Your task to perform on an android device: Go to Yahoo.com Image 0: 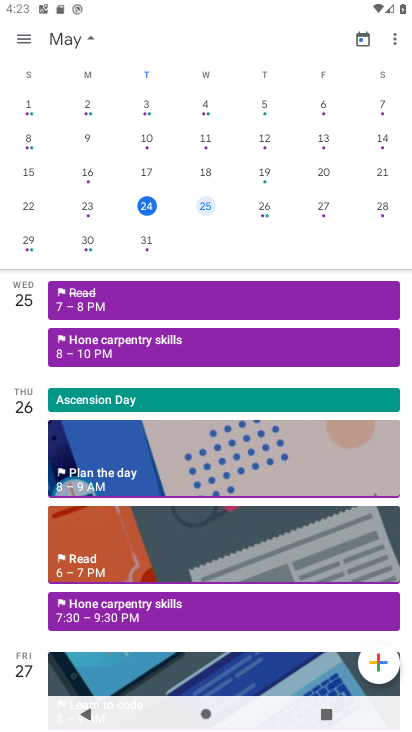
Step 0: press home button
Your task to perform on an android device: Go to Yahoo.com Image 1: 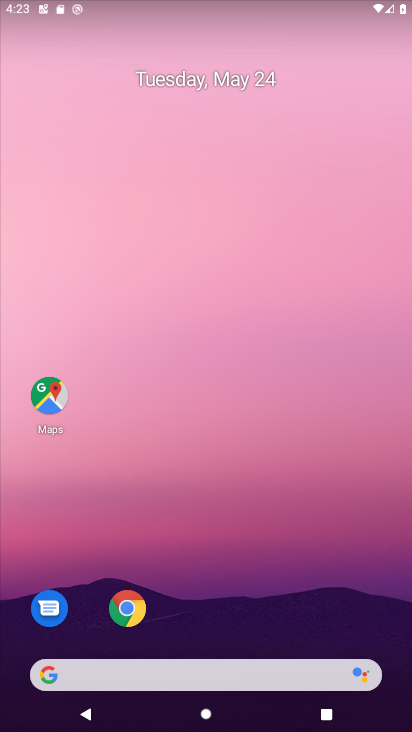
Step 1: click (132, 613)
Your task to perform on an android device: Go to Yahoo.com Image 2: 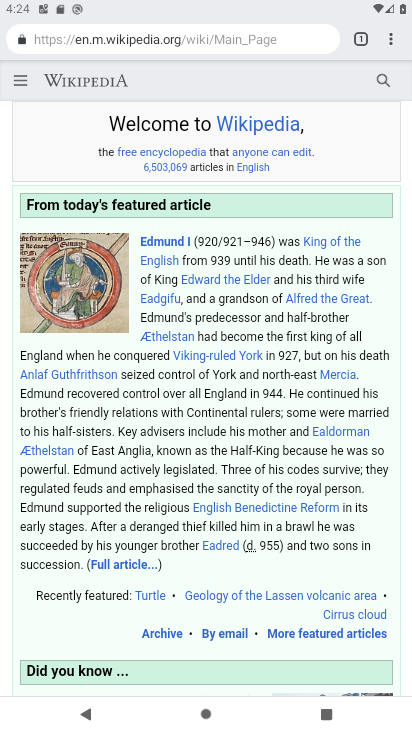
Step 2: click (367, 30)
Your task to perform on an android device: Go to Yahoo.com Image 3: 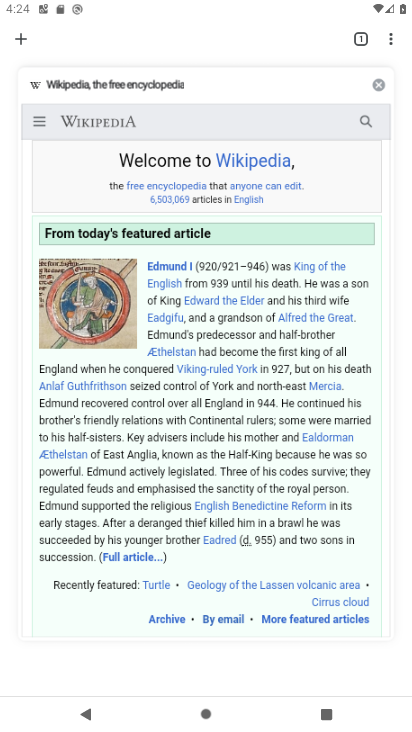
Step 3: click (373, 82)
Your task to perform on an android device: Go to Yahoo.com Image 4: 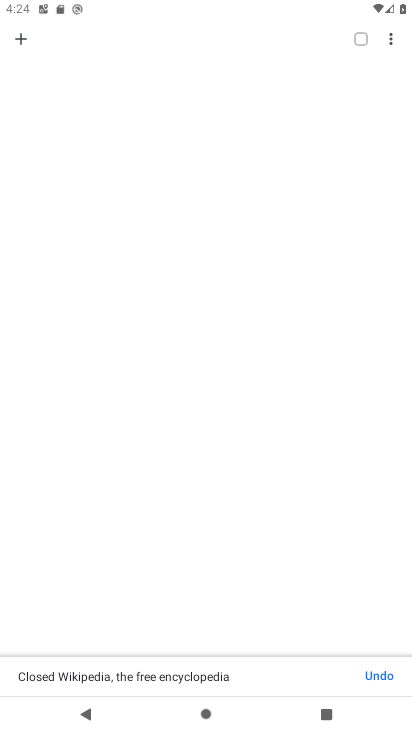
Step 4: click (20, 43)
Your task to perform on an android device: Go to Yahoo.com Image 5: 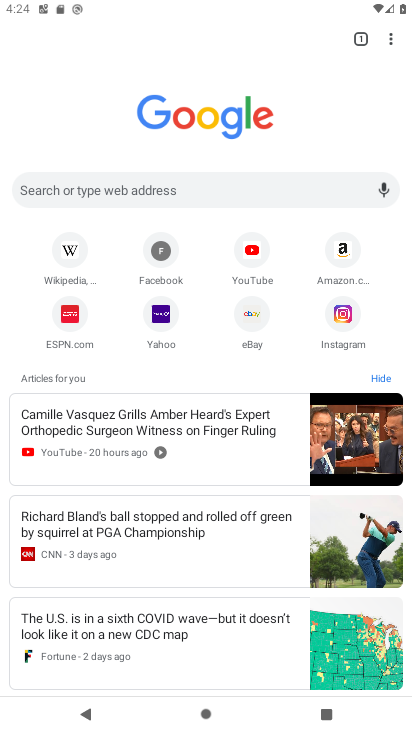
Step 5: click (156, 301)
Your task to perform on an android device: Go to Yahoo.com Image 6: 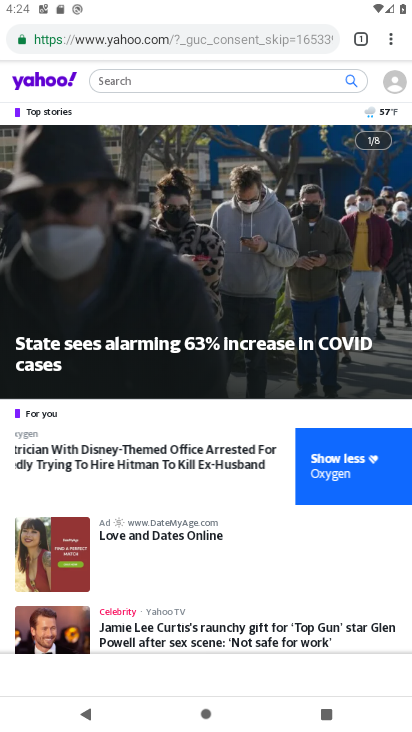
Step 6: task complete